Your task to perform on an android device: turn smart compose on in the gmail app Image 0: 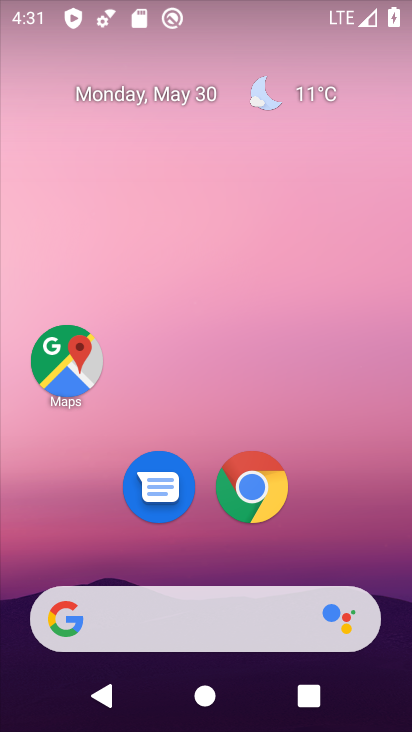
Step 0: drag from (407, 612) to (306, 57)
Your task to perform on an android device: turn smart compose on in the gmail app Image 1: 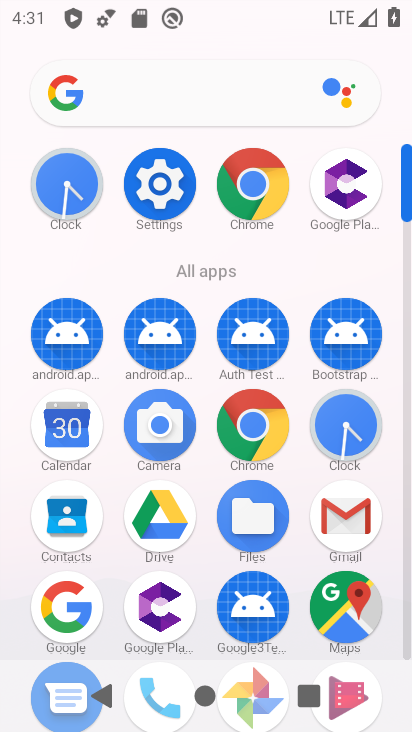
Step 1: click (348, 511)
Your task to perform on an android device: turn smart compose on in the gmail app Image 2: 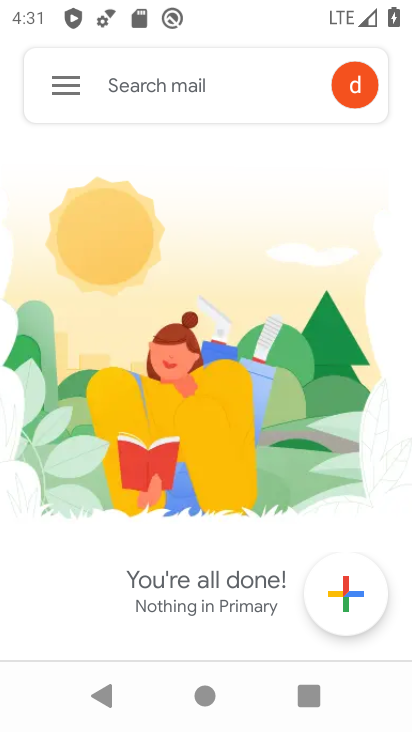
Step 2: click (68, 89)
Your task to perform on an android device: turn smart compose on in the gmail app Image 3: 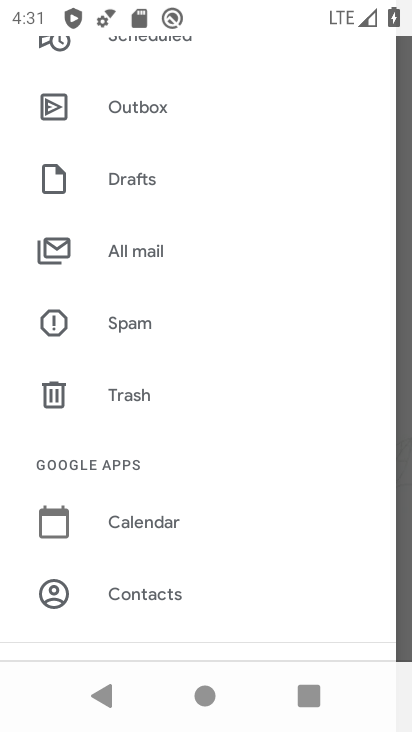
Step 3: drag from (211, 577) to (211, 205)
Your task to perform on an android device: turn smart compose on in the gmail app Image 4: 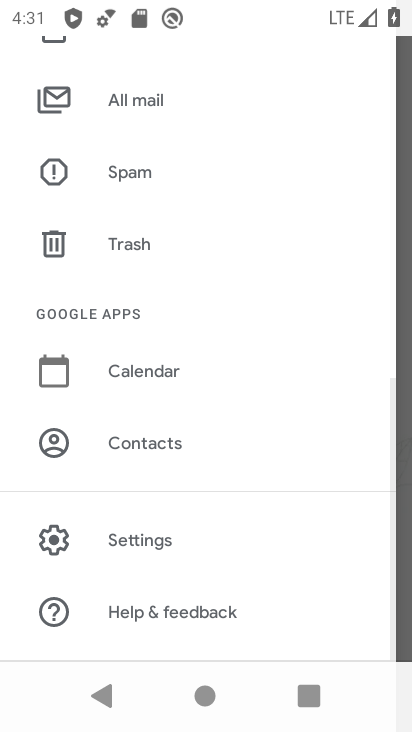
Step 4: click (141, 536)
Your task to perform on an android device: turn smart compose on in the gmail app Image 5: 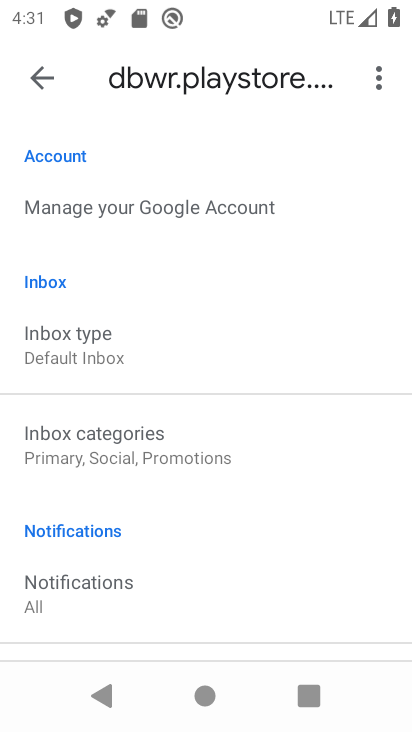
Step 5: task complete